Your task to perform on an android device: Search for Italian restaurants on Maps Image 0: 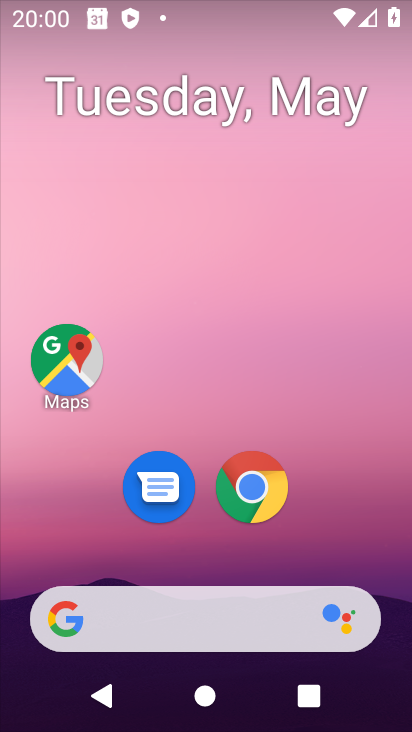
Step 0: click (87, 351)
Your task to perform on an android device: Search for Italian restaurants on Maps Image 1: 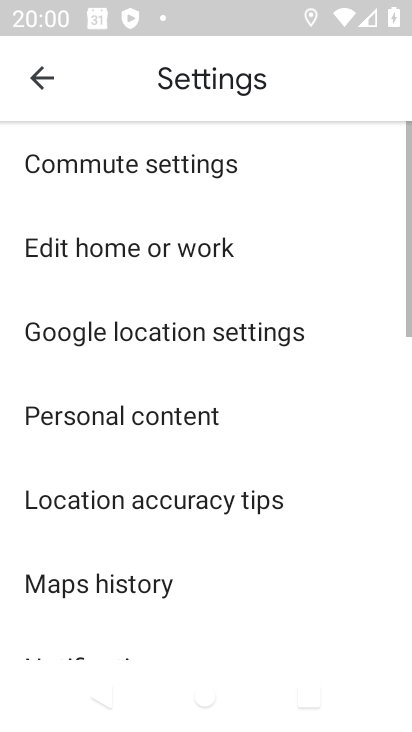
Step 1: click (27, 79)
Your task to perform on an android device: Search for Italian restaurants on Maps Image 2: 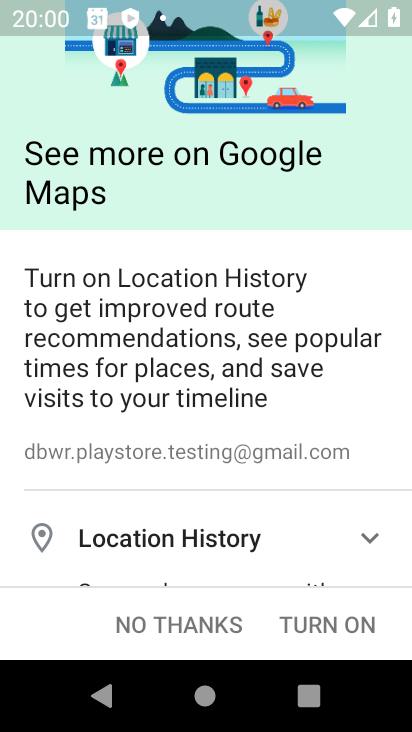
Step 2: click (303, 635)
Your task to perform on an android device: Search for Italian restaurants on Maps Image 3: 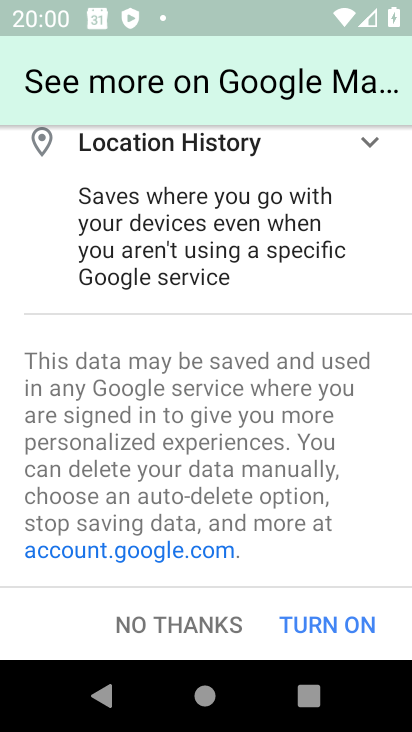
Step 3: click (320, 622)
Your task to perform on an android device: Search for Italian restaurants on Maps Image 4: 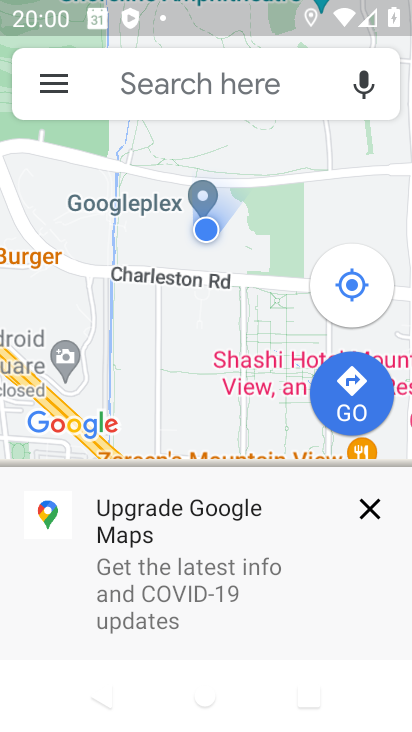
Step 4: click (370, 515)
Your task to perform on an android device: Search for Italian restaurants on Maps Image 5: 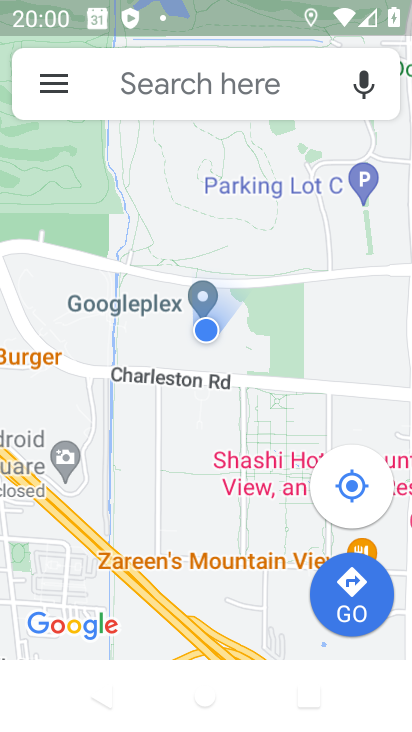
Step 5: click (221, 93)
Your task to perform on an android device: Search for Italian restaurants on Maps Image 6: 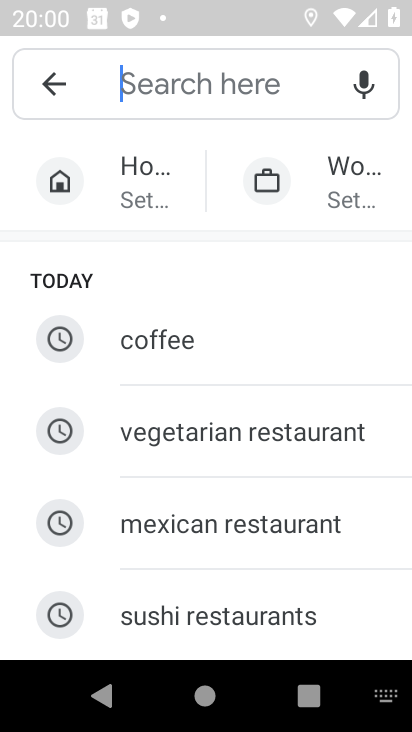
Step 6: type "italian"
Your task to perform on an android device: Search for Italian restaurants on Maps Image 7: 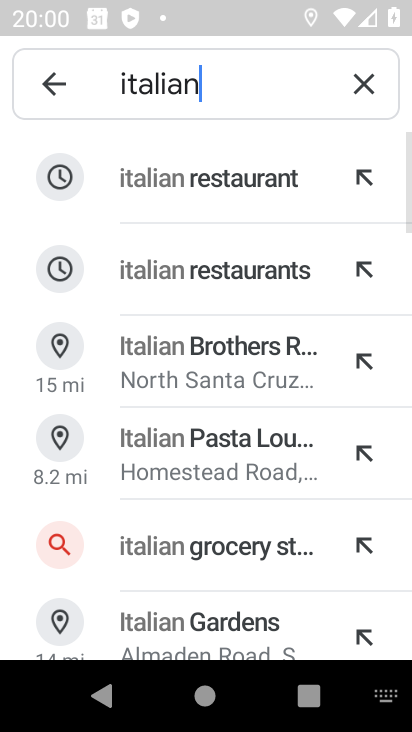
Step 7: click (235, 184)
Your task to perform on an android device: Search for Italian restaurants on Maps Image 8: 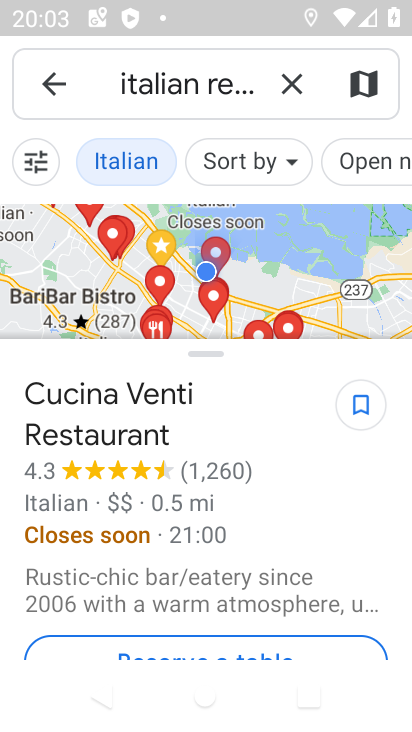
Step 8: task complete